Your task to perform on an android device: Open my contact list Image 0: 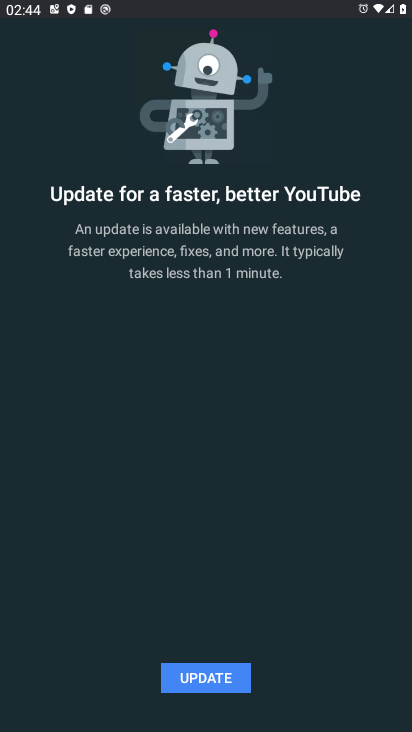
Step 0: press home button
Your task to perform on an android device: Open my contact list Image 1: 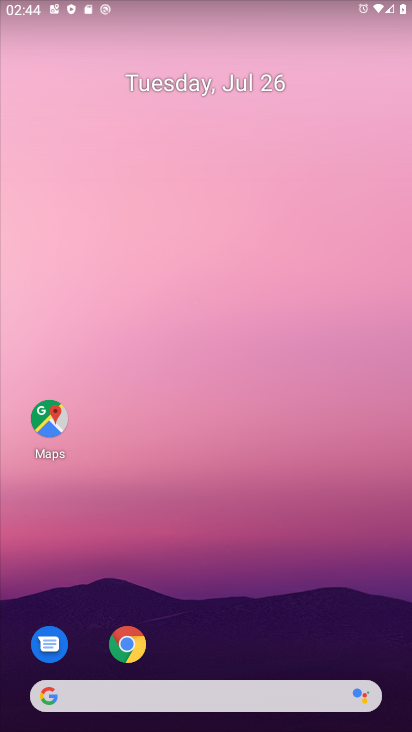
Step 1: drag from (198, 641) to (209, 230)
Your task to perform on an android device: Open my contact list Image 2: 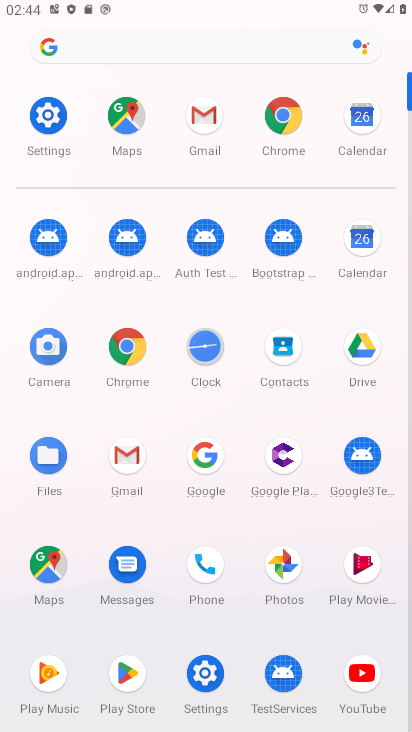
Step 2: click (206, 559)
Your task to perform on an android device: Open my contact list Image 3: 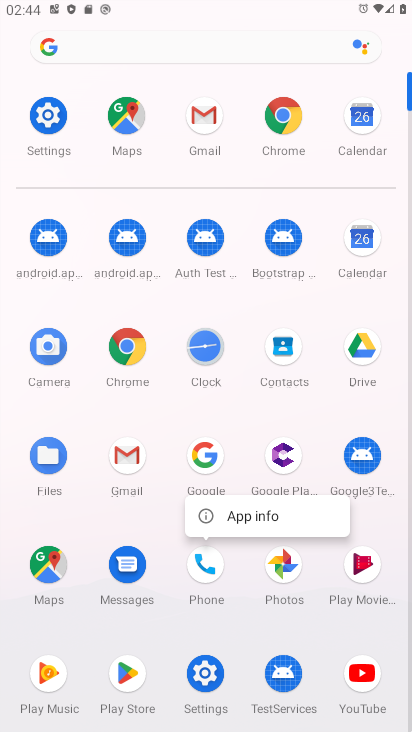
Step 3: click (206, 559)
Your task to perform on an android device: Open my contact list Image 4: 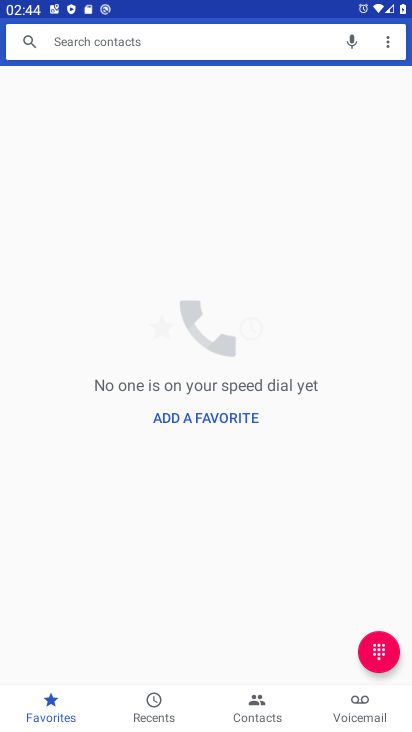
Step 4: click (260, 688)
Your task to perform on an android device: Open my contact list Image 5: 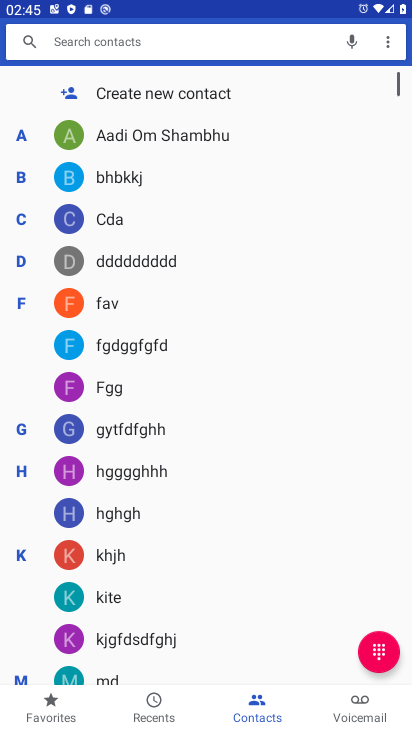
Step 5: task complete